Your task to perform on an android device: stop showing notifications on the lock screen Image 0: 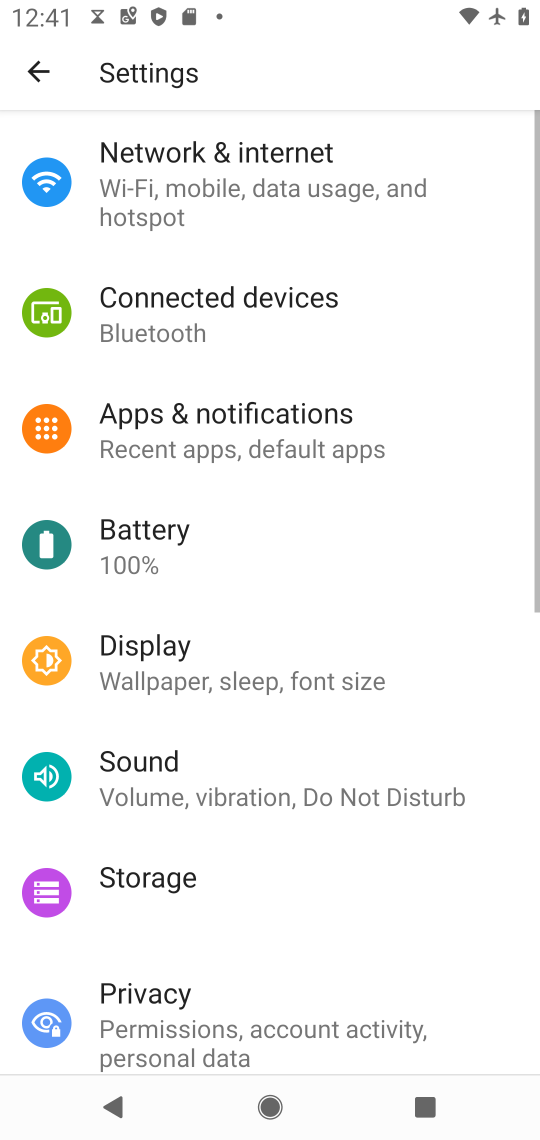
Step 0: press home button
Your task to perform on an android device: stop showing notifications on the lock screen Image 1: 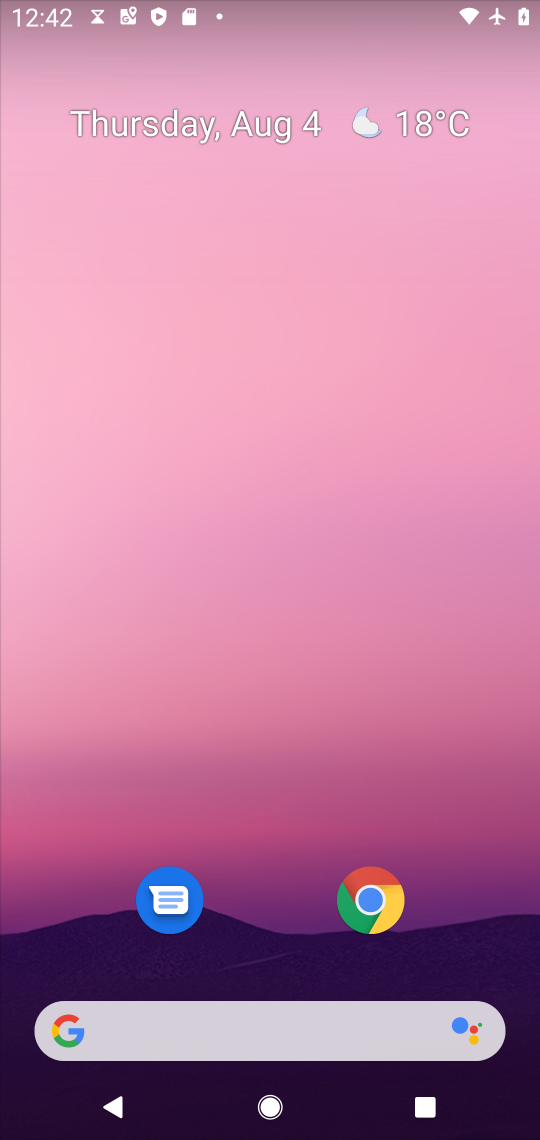
Step 1: drag from (272, 910) to (217, 378)
Your task to perform on an android device: stop showing notifications on the lock screen Image 2: 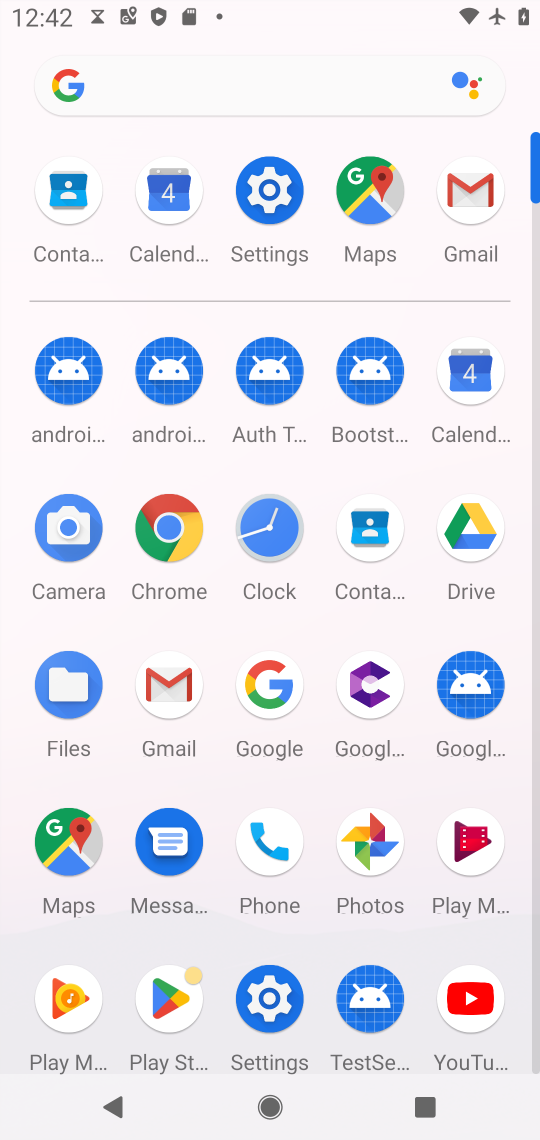
Step 2: click (282, 203)
Your task to perform on an android device: stop showing notifications on the lock screen Image 3: 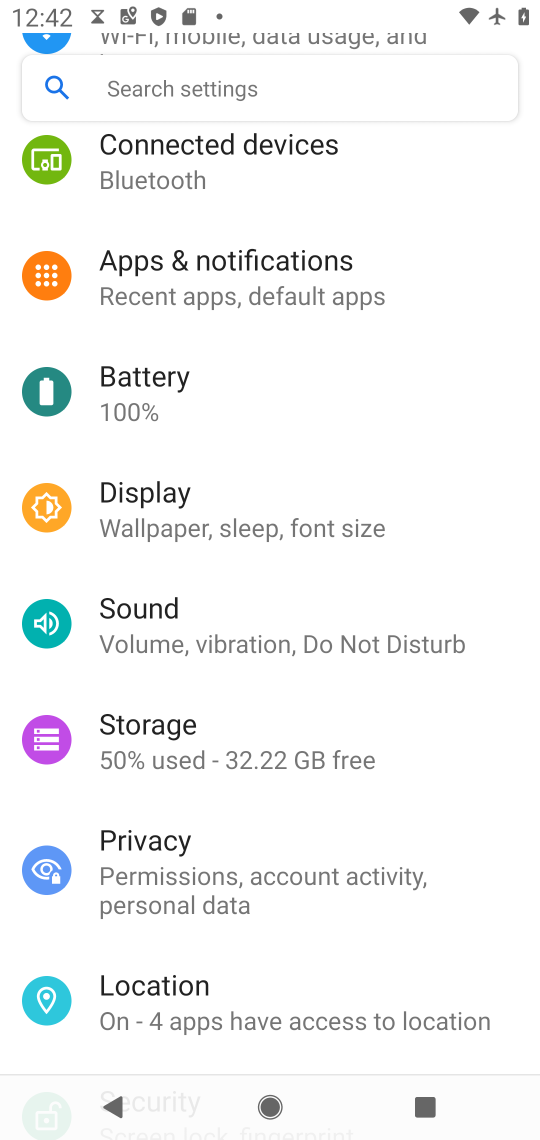
Step 3: click (343, 279)
Your task to perform on an android device: stop showing notifications on the lock screen Image 4: 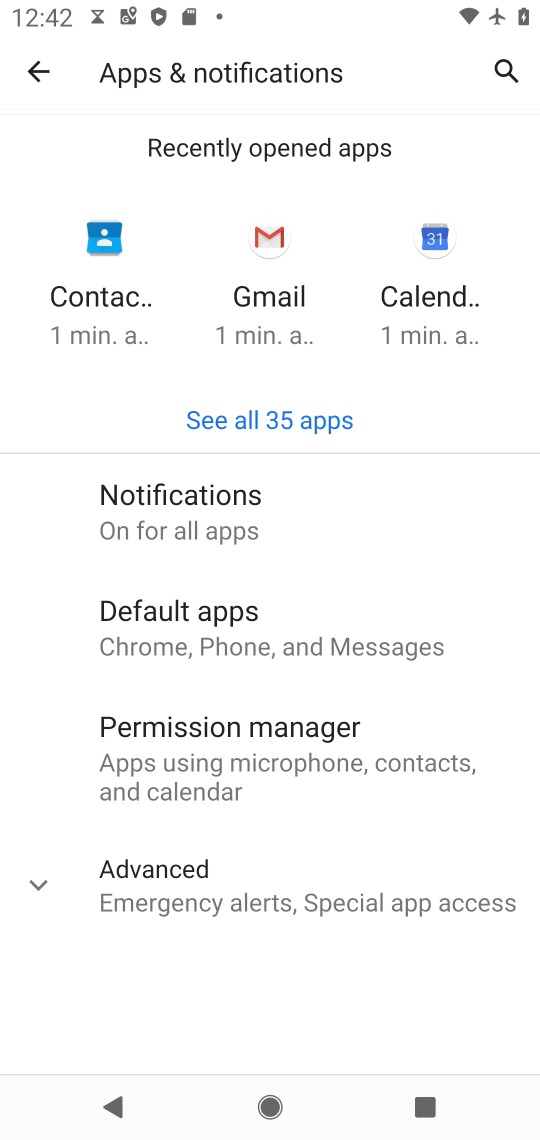
Step 4: click (164, 501)
Your task to perform on an android device: stop showing notifications on the lock screen Image 5: 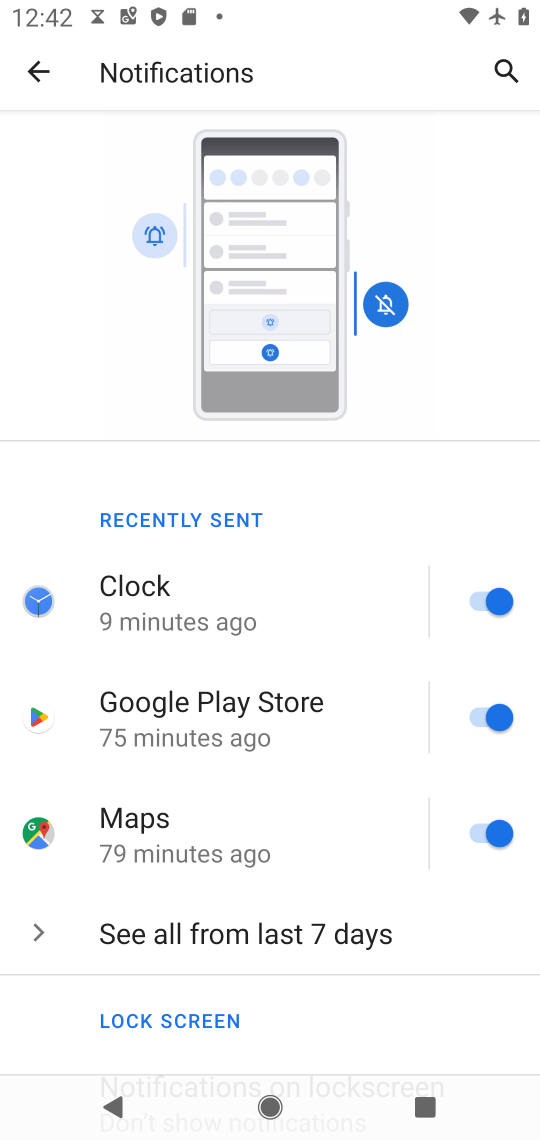
Step 5: click (479, 843)
Your task to perform on an android device: stop showing notifications on the lock screen Image 6: 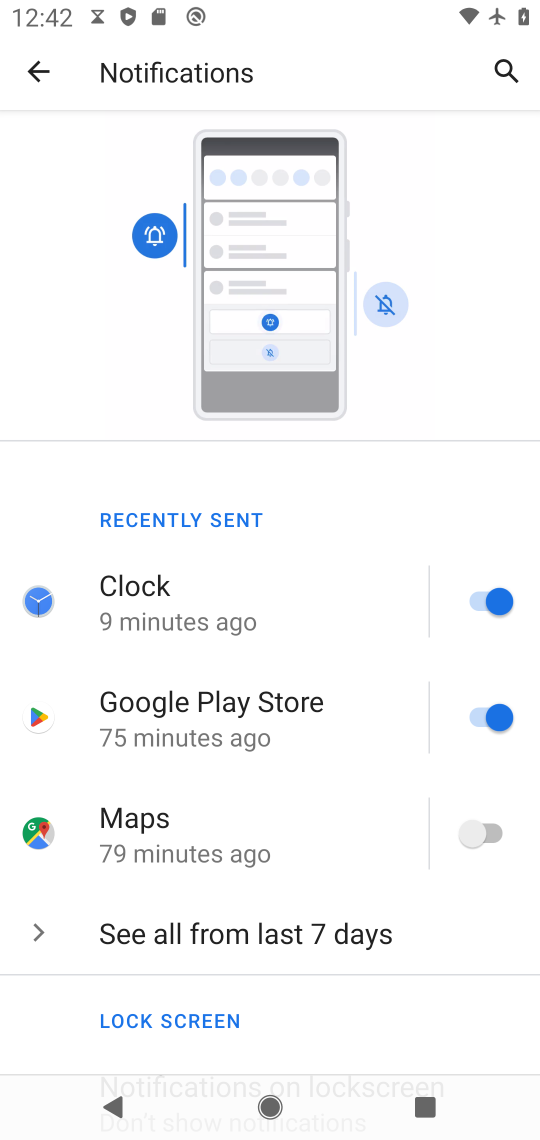
Step 6: drag from (320, 1018) to (364, 715)
Your task to perform on an android device: stop showing notifications on the lock screen Image 7: 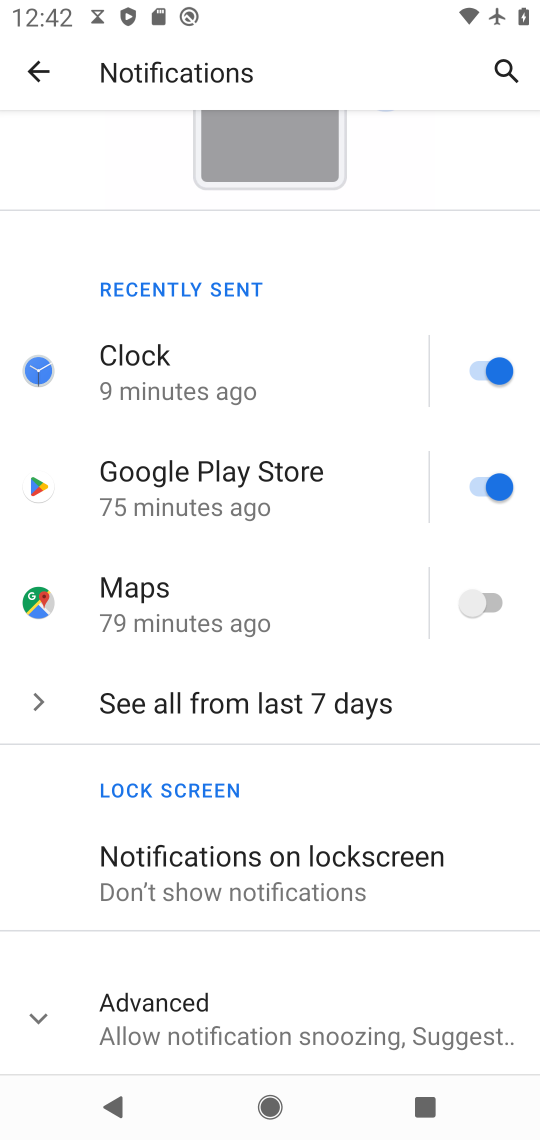
Step 7: click (271, 860)
Your task to perform on an android device: stop showing notifications on the lock screen Image 8: 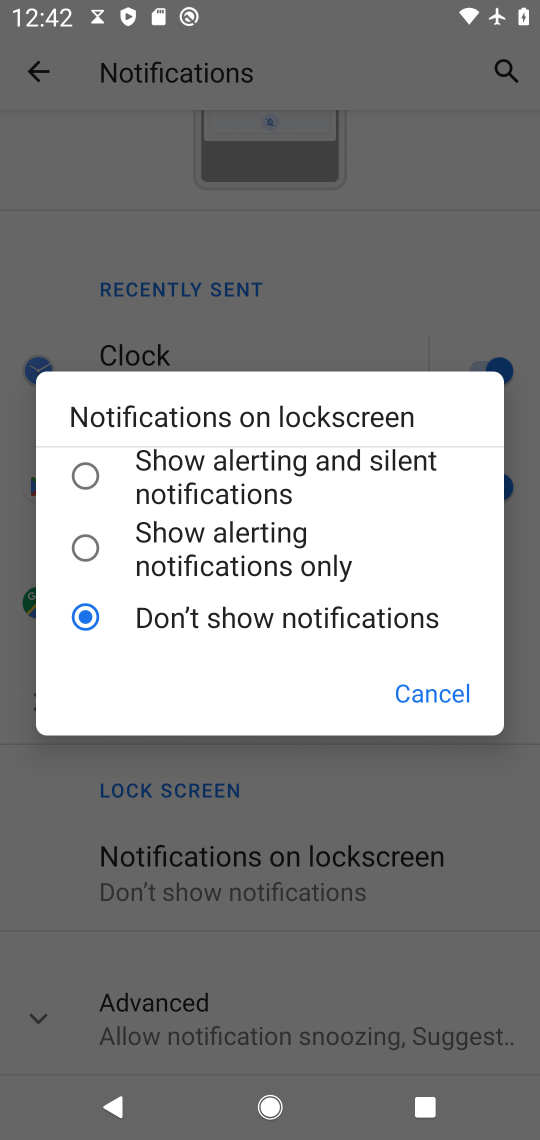
Step 8: task complete